Your task to perform on an android device: add a contact in the contacts app Image 0: 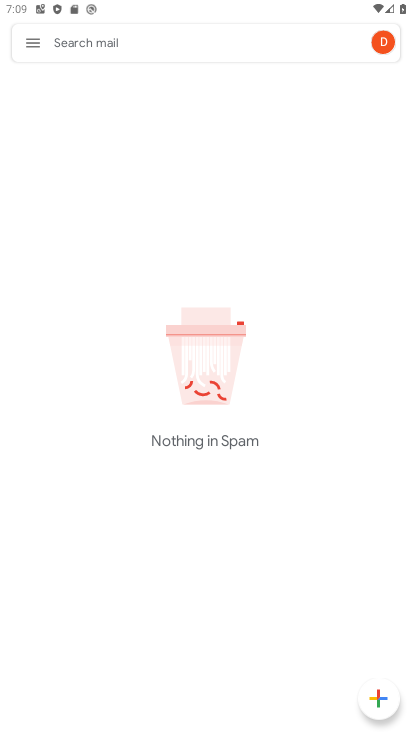
Step 0: press home button
Your task to perform on an android device: add a contact in the contacts app Image 1: 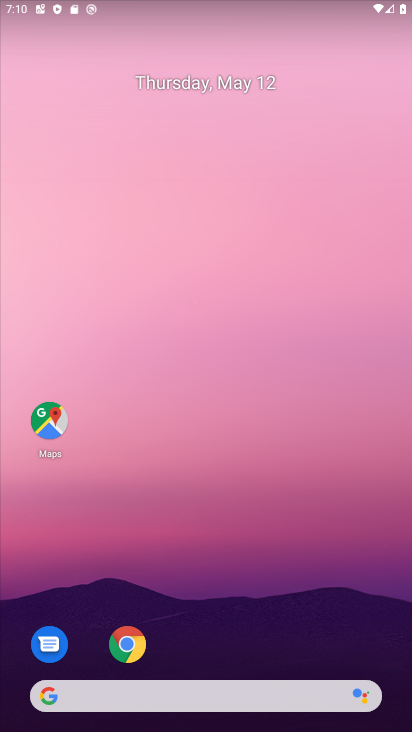
Step 1: drag from (164, 711) to (271, 193)
Your task to perform on an android device: add a contact in the contacts app Image 2: 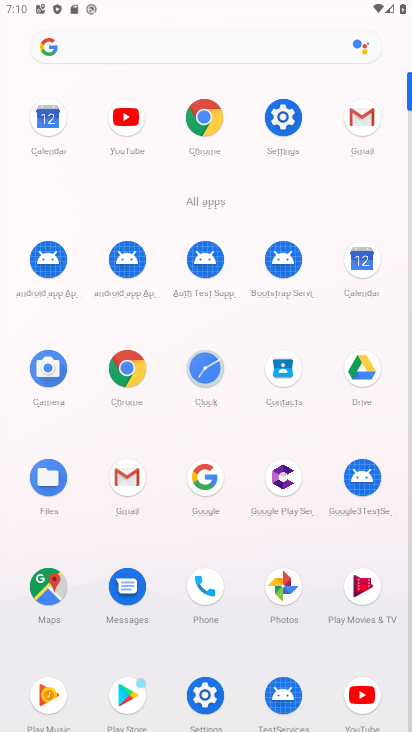
Step 2: click (199, 595)
Your task to perform on an android device: add a contact in the contacts app Image 3: 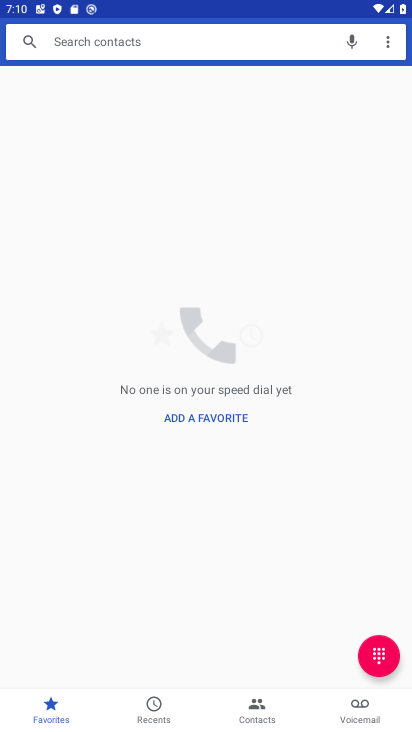
Step 3: click (261, 710)
Your task to perform on an android device: add a contact in the contacts app Image 4: 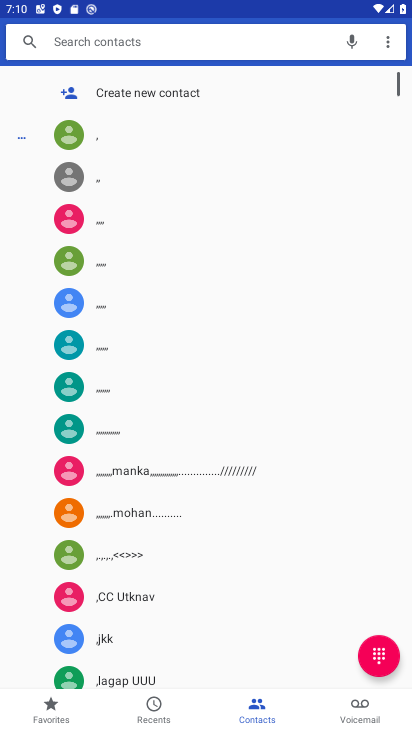
Step 4: click (93, 93)
Your task to perform on an android device: add a contact in the contacts app Image 5: 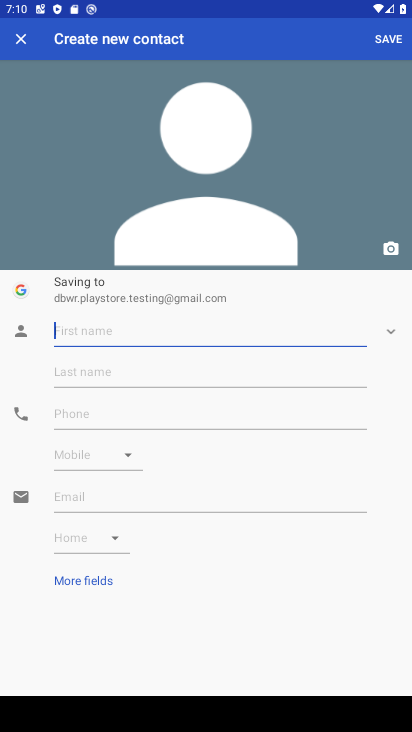
Step 5: click (105, 336)
Your task to perform on an android device: add a contact in the contacts app Image 6: 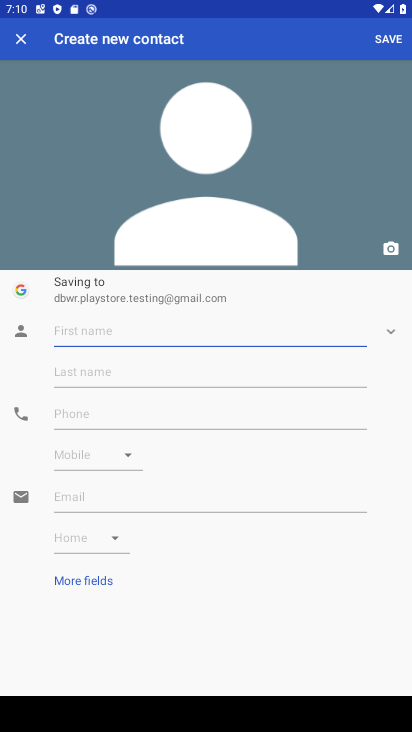
Step 6: drag from (383, 719) to (355, 590)
Your task to perform on an android device: add a contact in the contacts app Image 7: 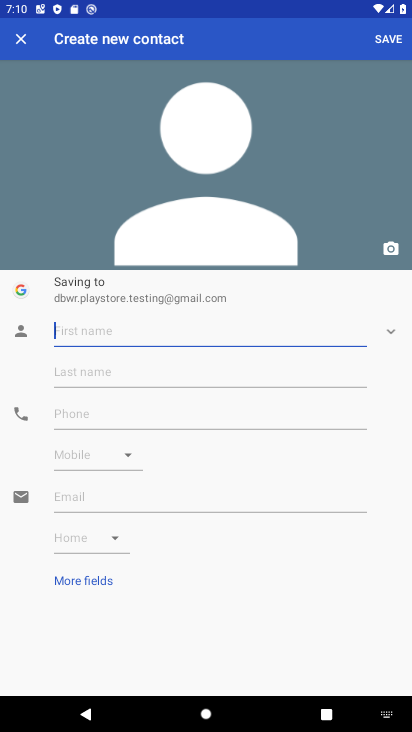
Step 7: click (394, 709)
Your task to perform on an android device: add a contact in the contacts app Image 8: 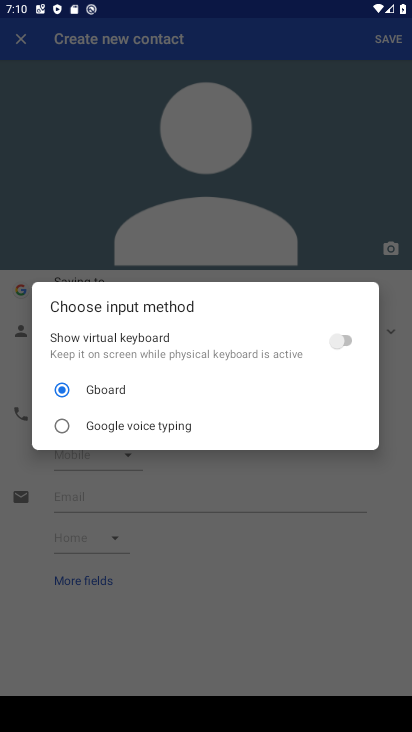
Step 8: click (343, 341)
Your task to perform on an android device: add a contact in the contacts app Image 9: 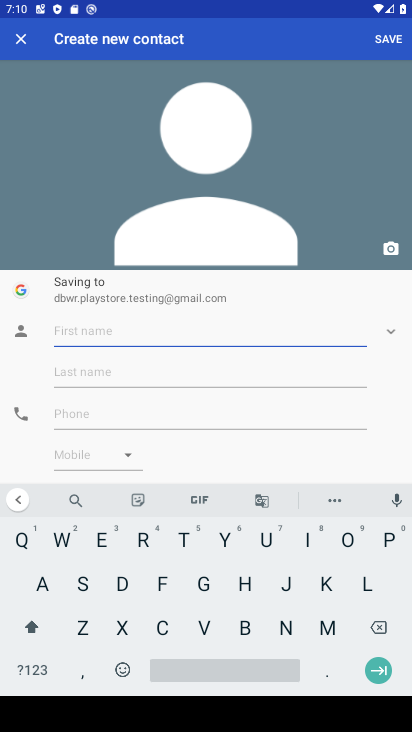
Step 9: click (181, 578)
Your task to perform on an android device: add a contact in the contacts app Image 10: 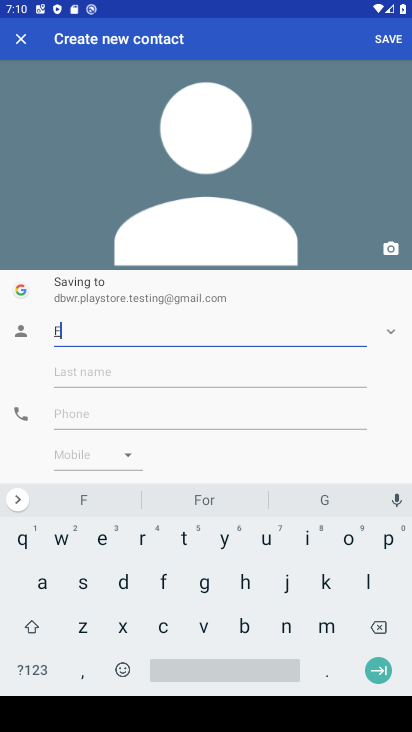
Step 10: click (131, 587)
Your task to perform on an android device: add a contact in the contacts app Image 11: 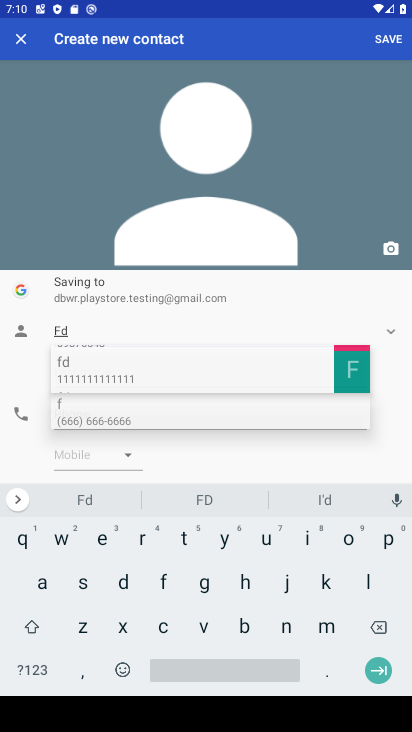
Step 11: click (167, 633)
Your task to perform on an android device: add a contact in the contacts app Image 12: 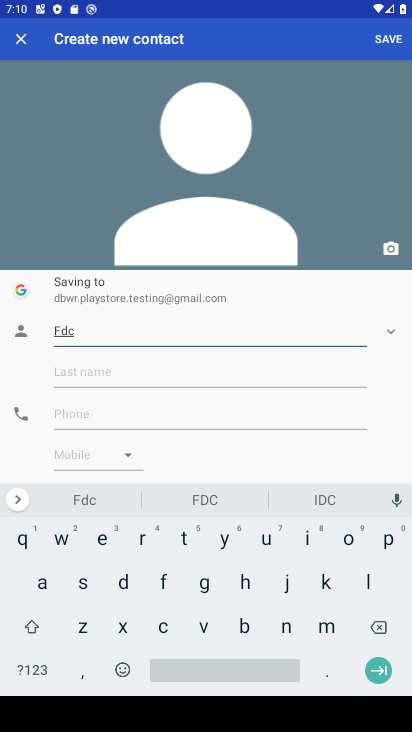
Step 12: click (104, 445)
Your task to perform on an android device: add a contact in the contacts app Image 13: 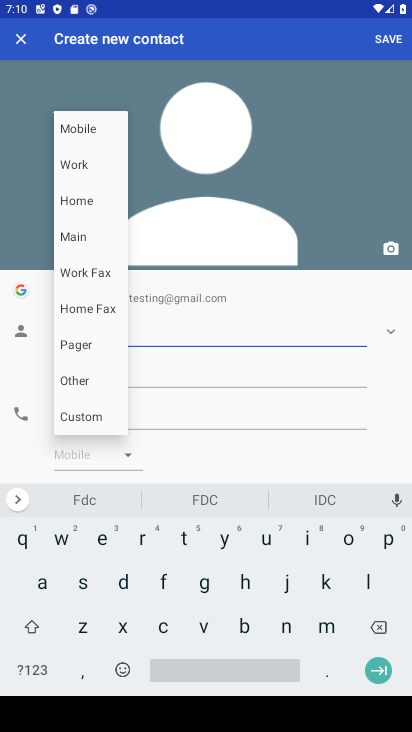
Step 13: click (85, 462)
Your task to perform on an android device: add a contact in the contacts app Image 14: 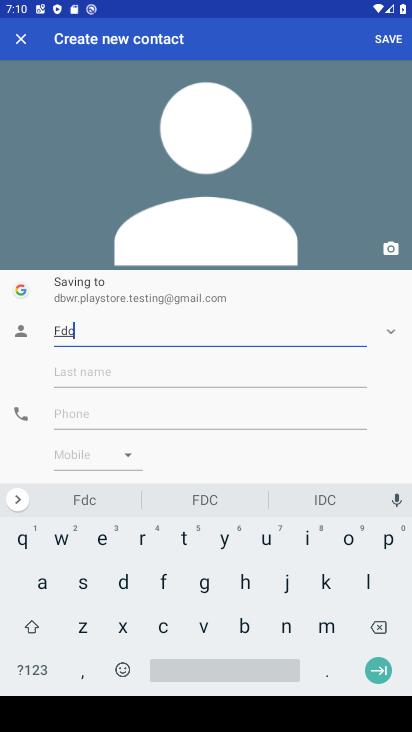
Step 14: click (108, 407)
Your task to perform on an android device: add a contact in the contacts app Image 15: 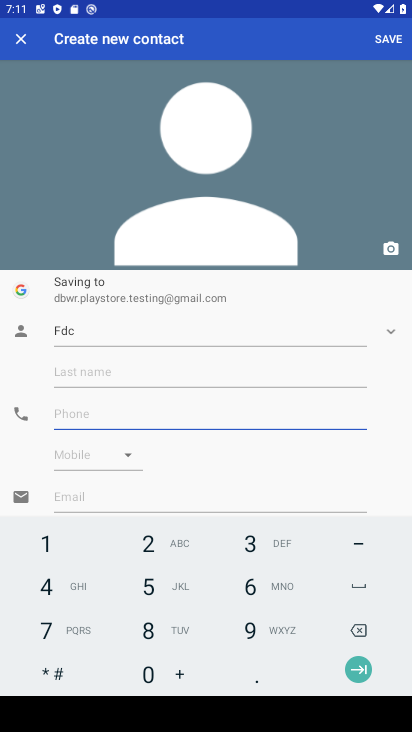
Step 15: click (184, 594)
Your task to perform on an android device: add a contact in the contacts app Image 16: 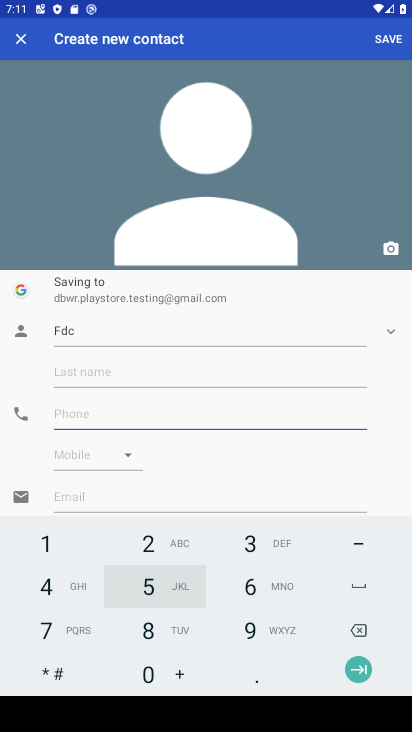
Step 16: click (159, 619)
Your task to perform on an android device: add a contact in the contacts app Image 17: 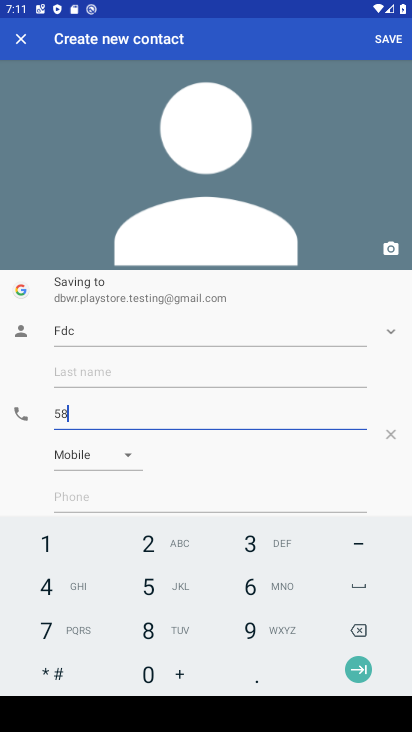
Step 17: click (54, 596)
Your task to perform on an android device: add a contact in the contacts app Image 18: 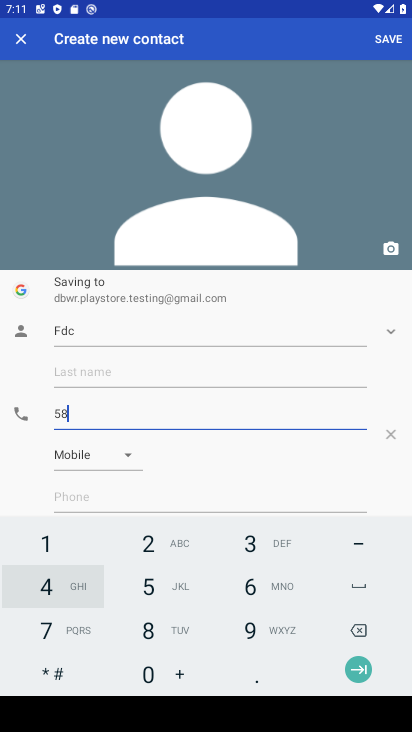
Step 18: click (73, 617)
Your task to perform on an android device: add a contact in the contacts app Image 19: 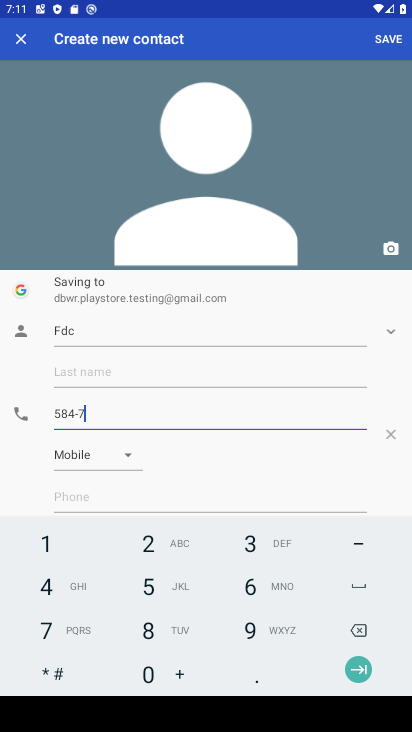
Step 19: click (242, 599)
Your task to perform on an android device: add a contact in the contacts app Image 20: 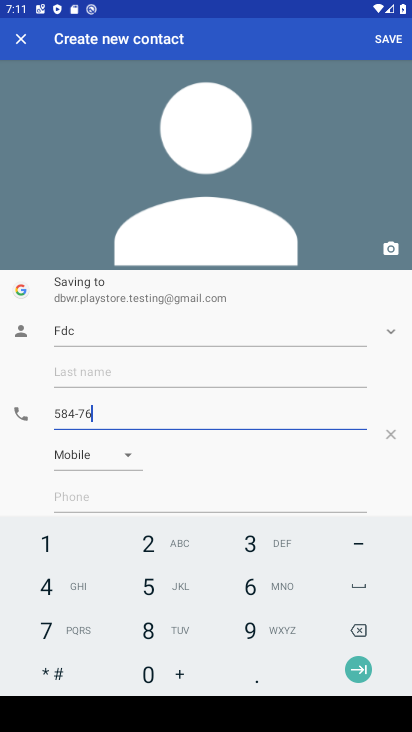
Step 20: click (241, 624)
Your task to perform on an android device: add a contact in the contacts app Image 21: 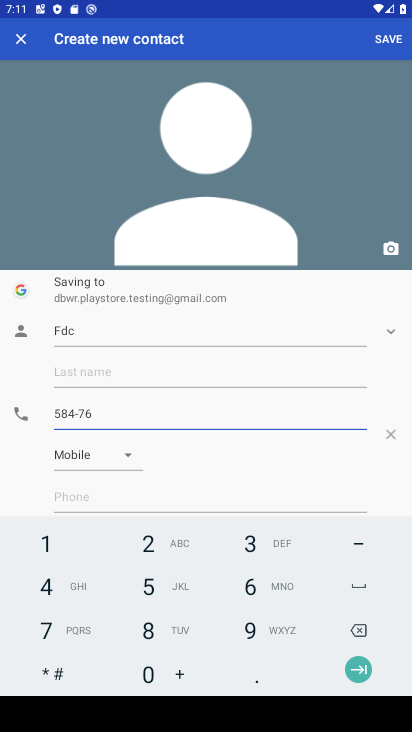
Step 21: click (170, 622)
Your task to perform on an android device: add a contact in the contacts app Image 22: 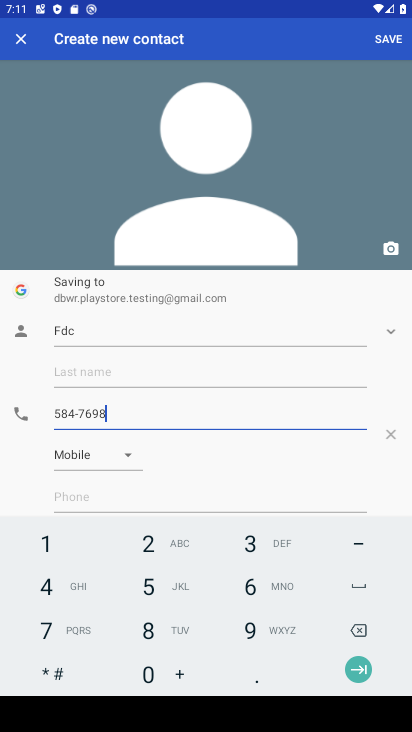
Step 22: click (381, 43)
Your task to perform on an android device: add a contact in the contacts app Image 23: 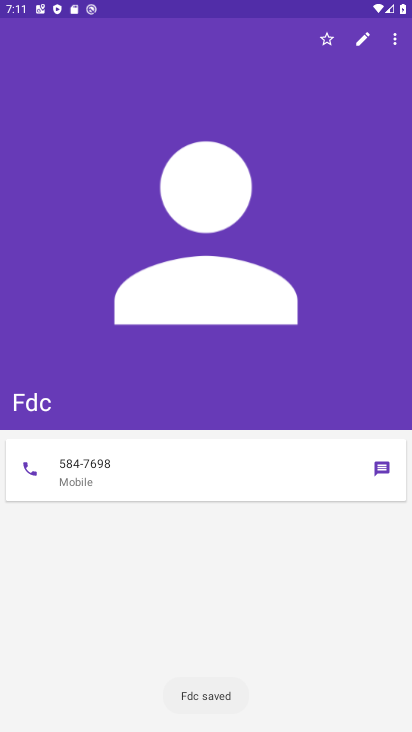
Step 23: task complete